Your task to perform on an android device: check google app version Image 0: 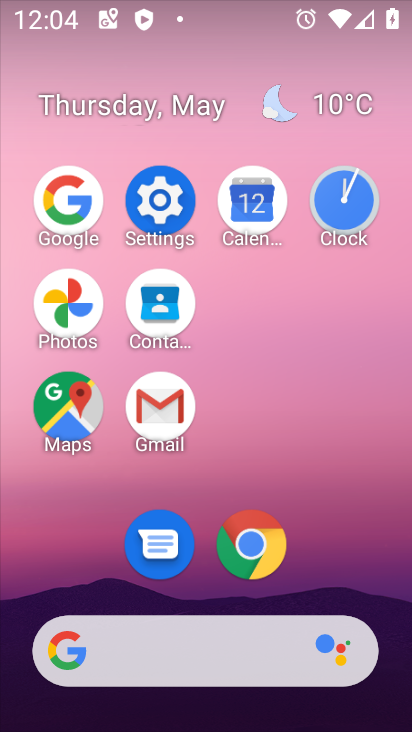
Step 0: click (80, 202)
Your task to perform on an android device: check google app version Image 1: 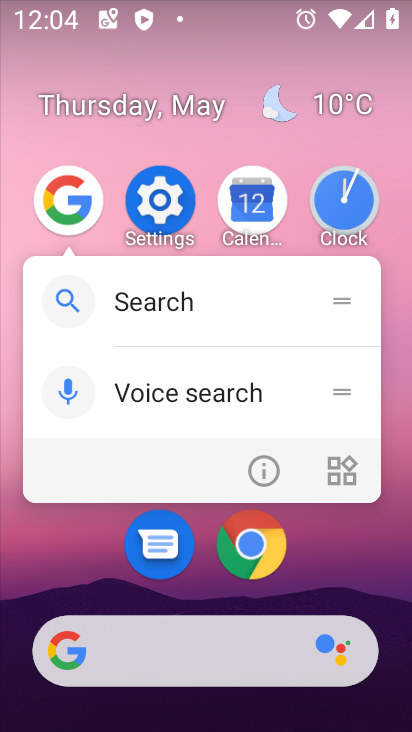
Step 1: click (269, 461)
Your task to perform on an android device: check google app version Image 2: 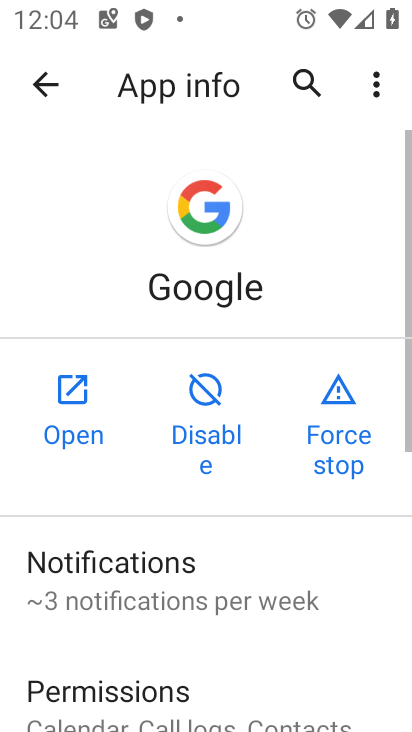
Step 2: drag from (231, 632) to (264, 166)
Your task to perform on an android device: check google app version Image 3: 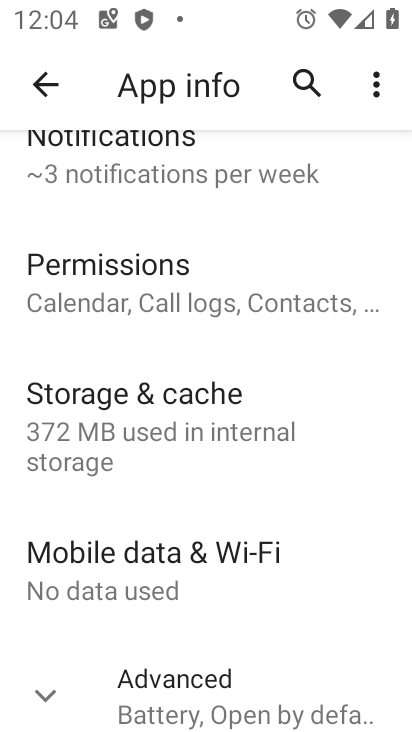
Step 3: drag from (215, 662) to (247, 226)
Your task to perform on an android device: check google app version Image 4: 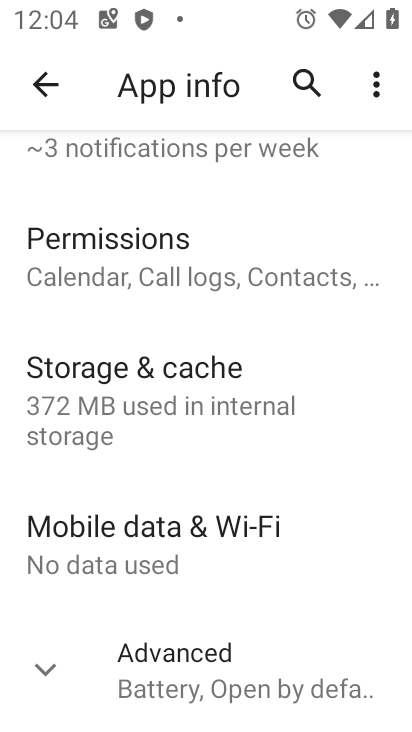
Step 4: click (204, 639)
Your task to perform on an android device: check google app version Image 5: 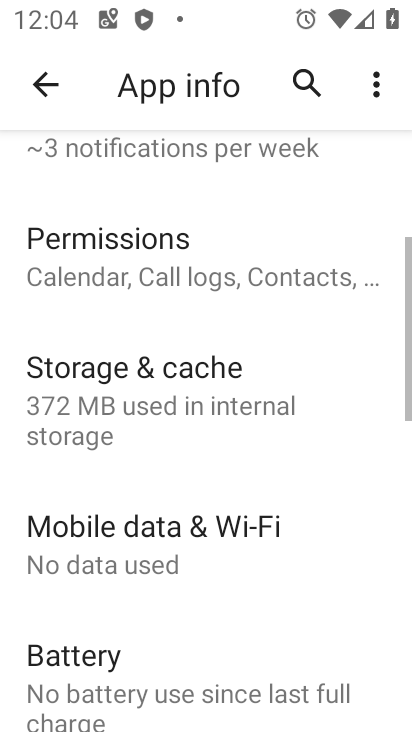
Step 5: task complete